Your task to perform on an android device: open app "Google Pay: Save, Pay, Manage" (install if not already installed) Image 0: 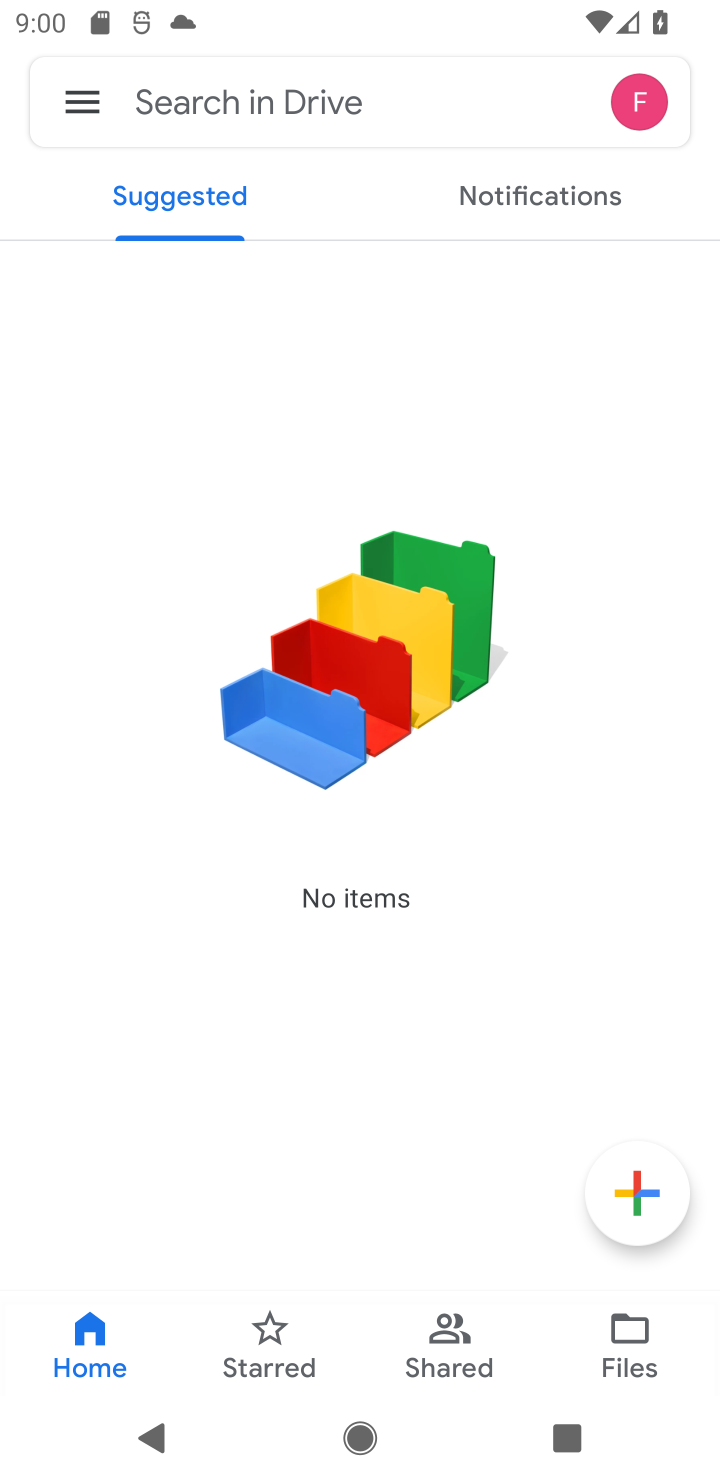
Step 0: press home button
Your task to perform on an android device: open app "Google Pay: Save, Pay, Manage" (install if not already installed) Image 1: 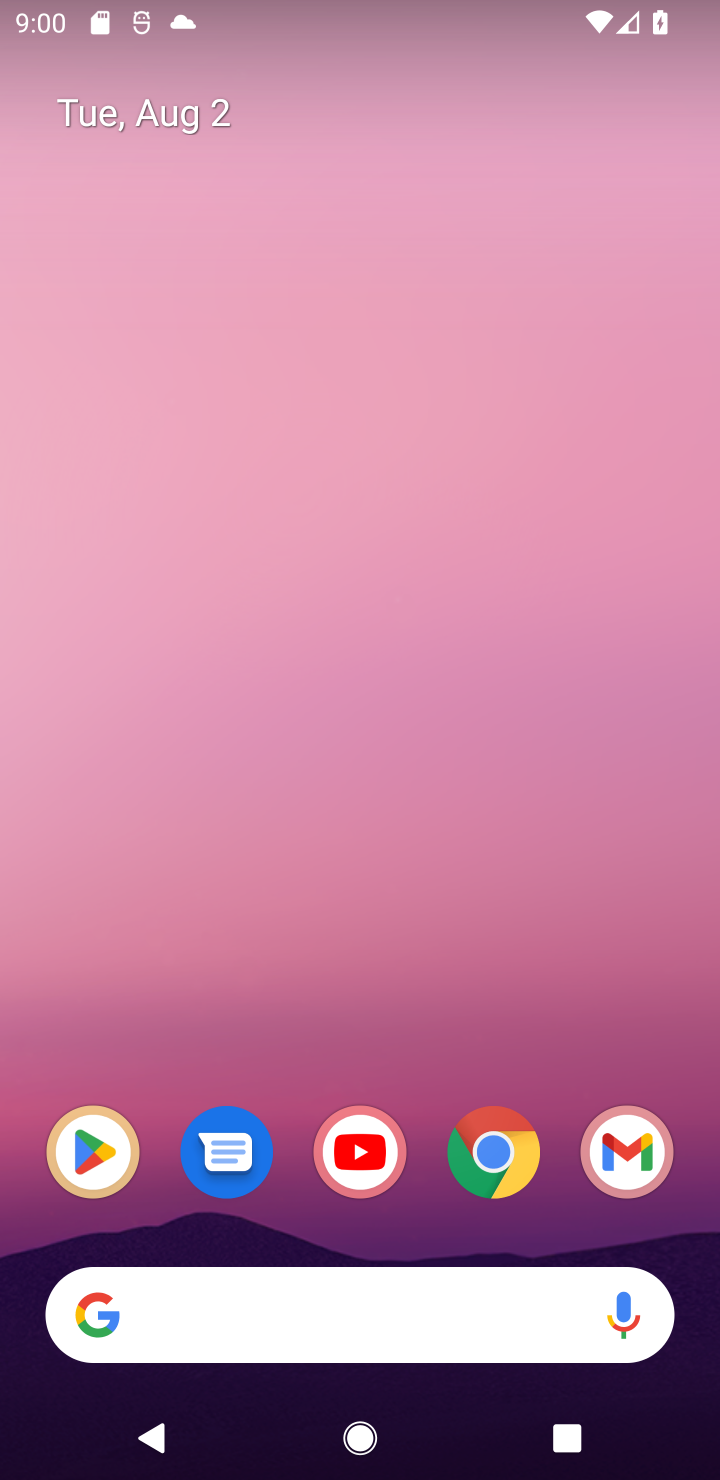
Step 1: click (96, 1160)
Your task to perform on an android device: open app "Google Pay: Save, Pay, Manage" (install if not already installed) Image 2: 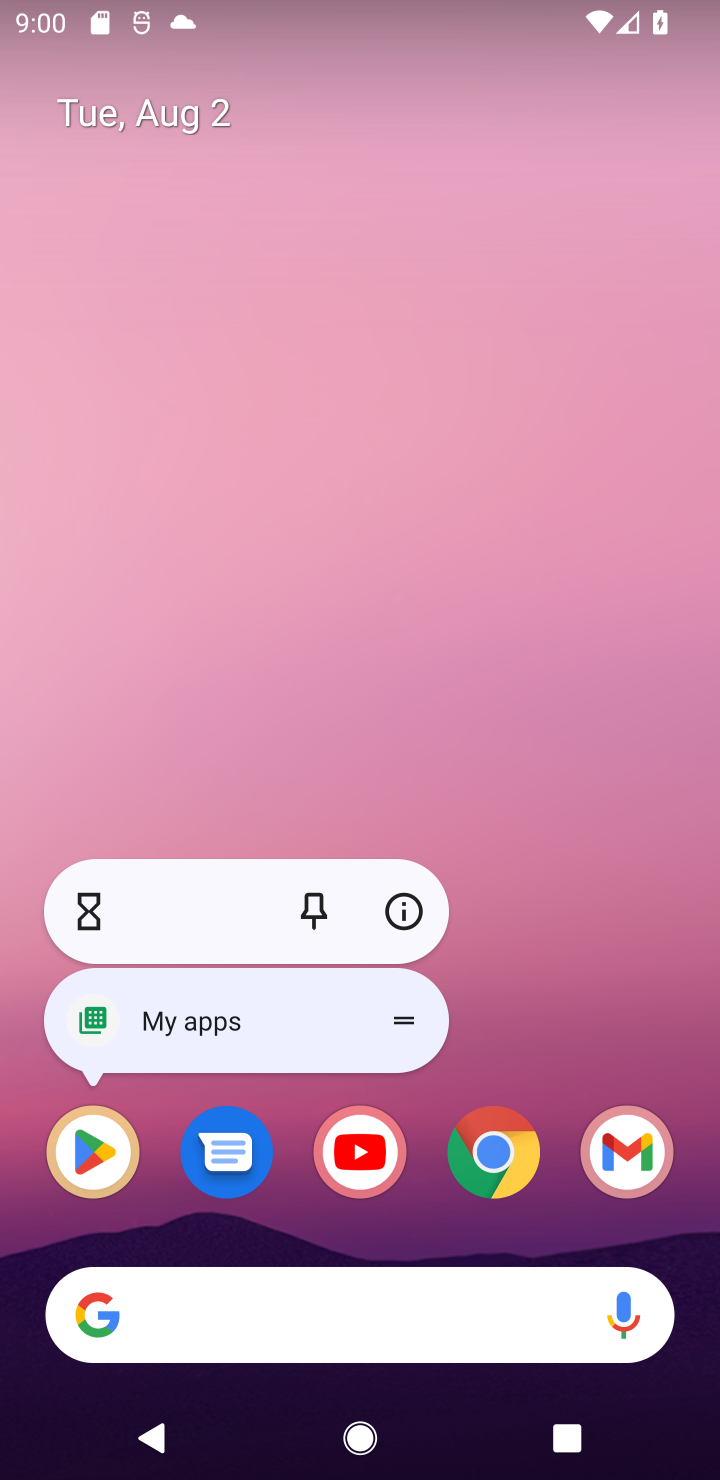
Step 2: click (96, 1160)
Your task to perform on an android device: open app "Google Pay: Save, Pay, Manage" (install if not already installed) Image 3: 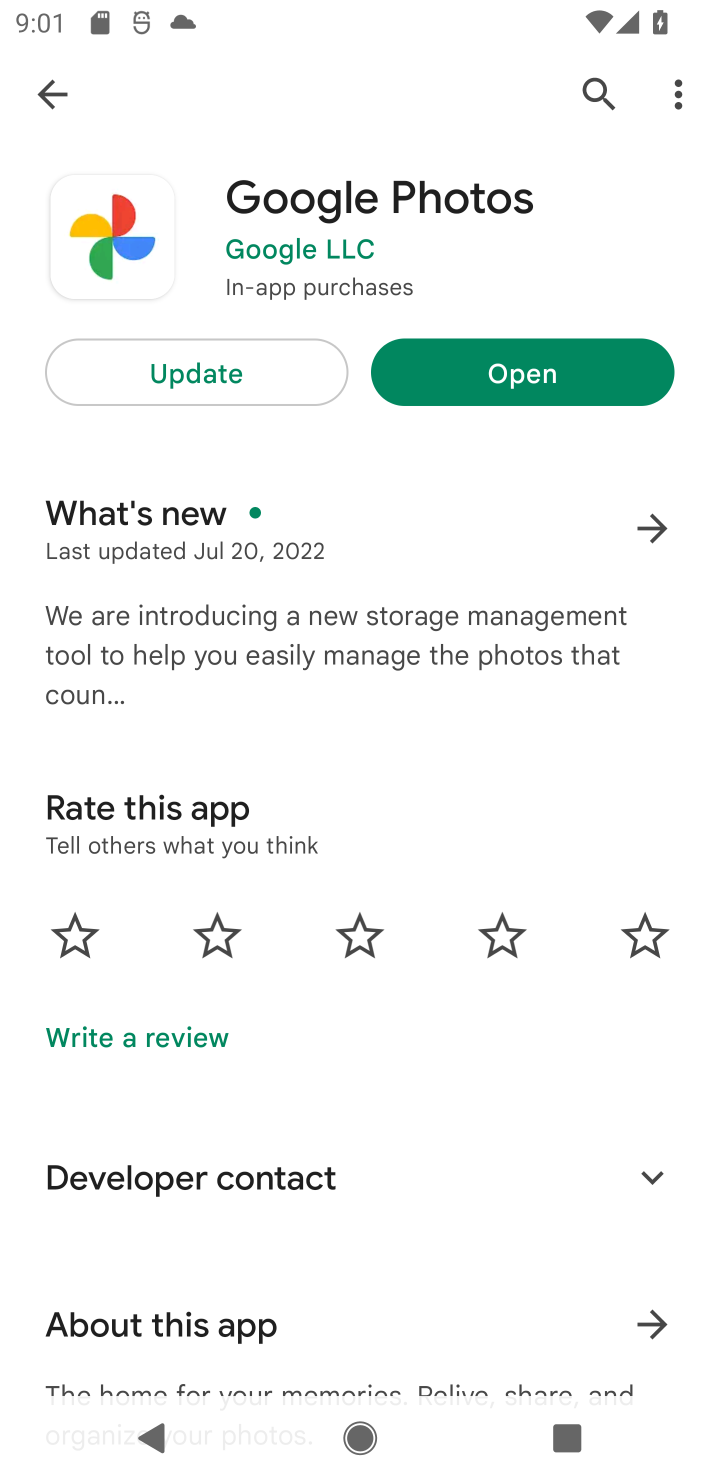
Step 3: click (42, 89)
Your task to perform on an android device: open app "Google Pay: Save, Pay, Manage" (install if not already installed) Image 4: 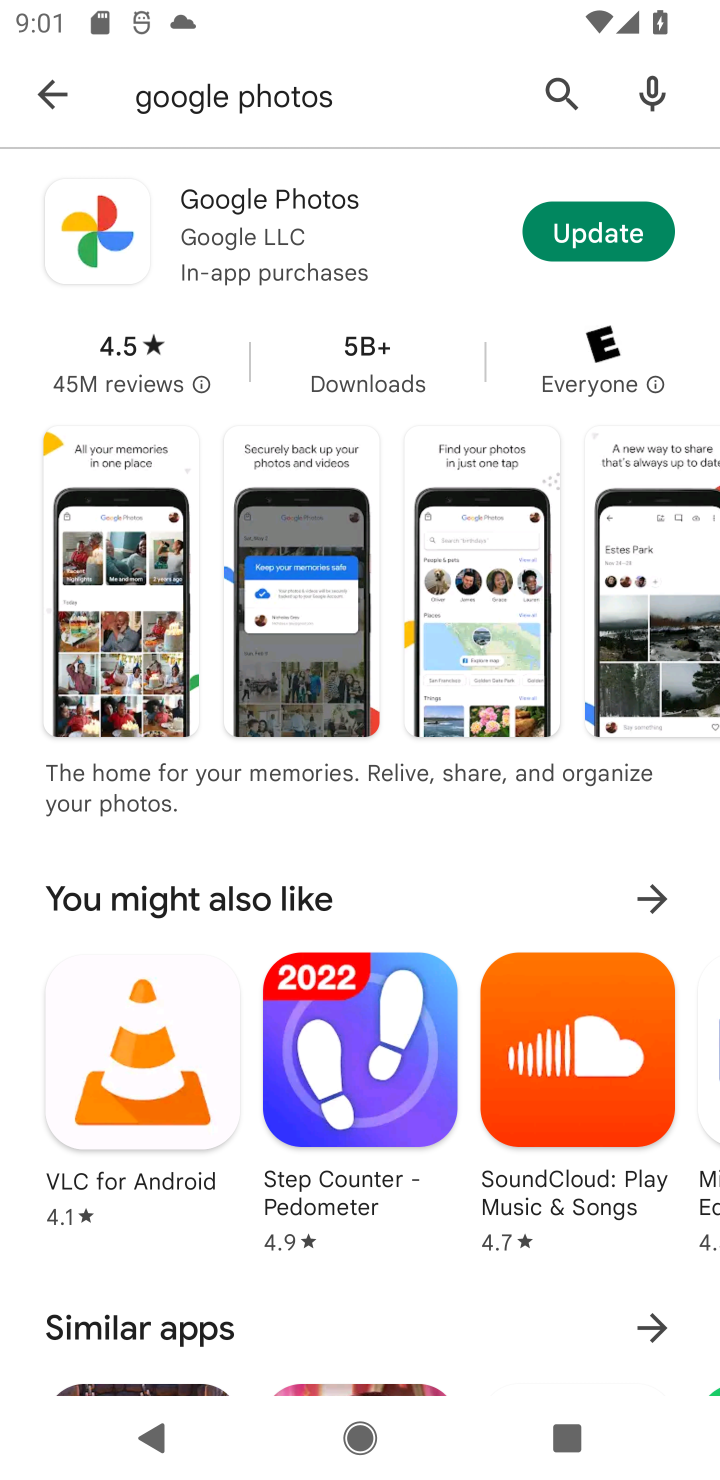
Step 4: click (67, 88)
Your task to perform on an android device: open app "Google Pay: Save, Pay, Manage" (install if not already installed) Image 5: 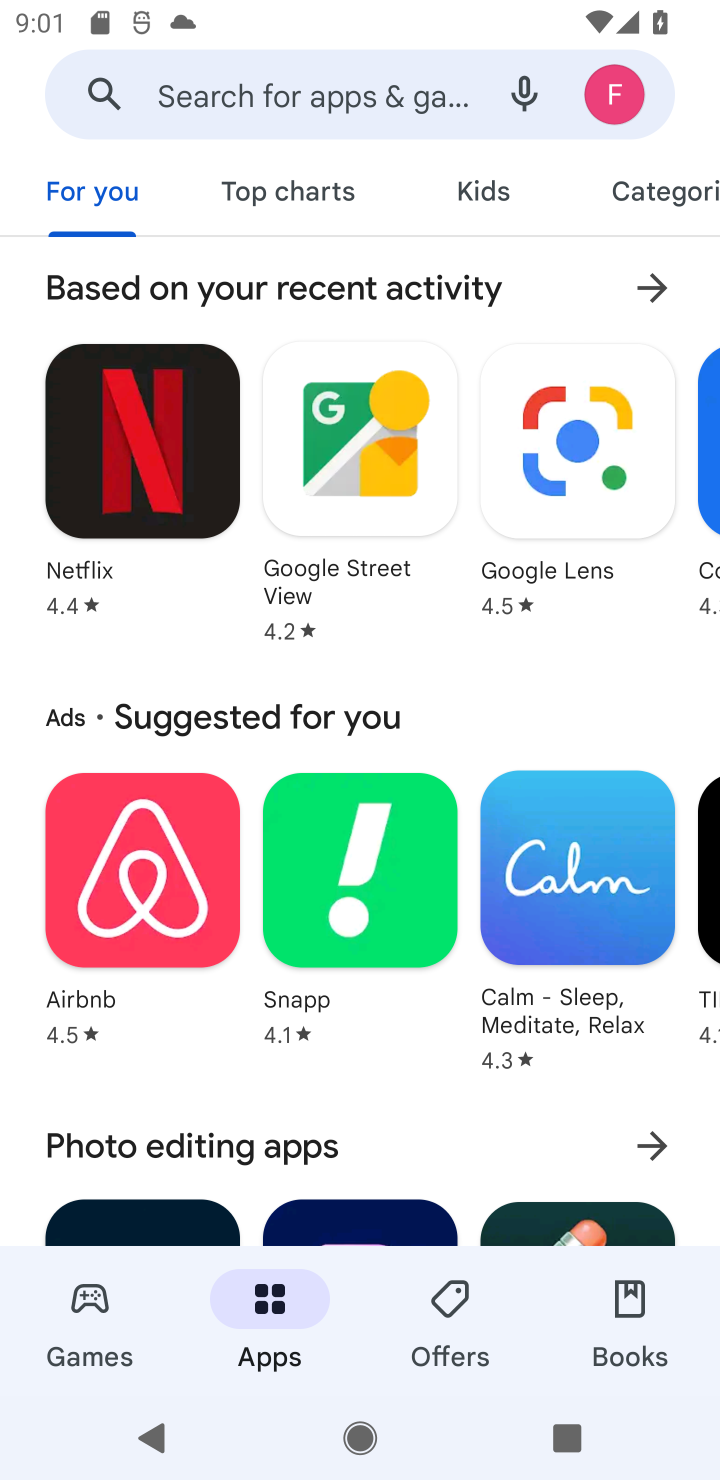
Step 5: click (180, 91)
Your task to perform on an android device: open app "Google Pay: Save, Pay, Manage" (install if not already installed) Image 6: 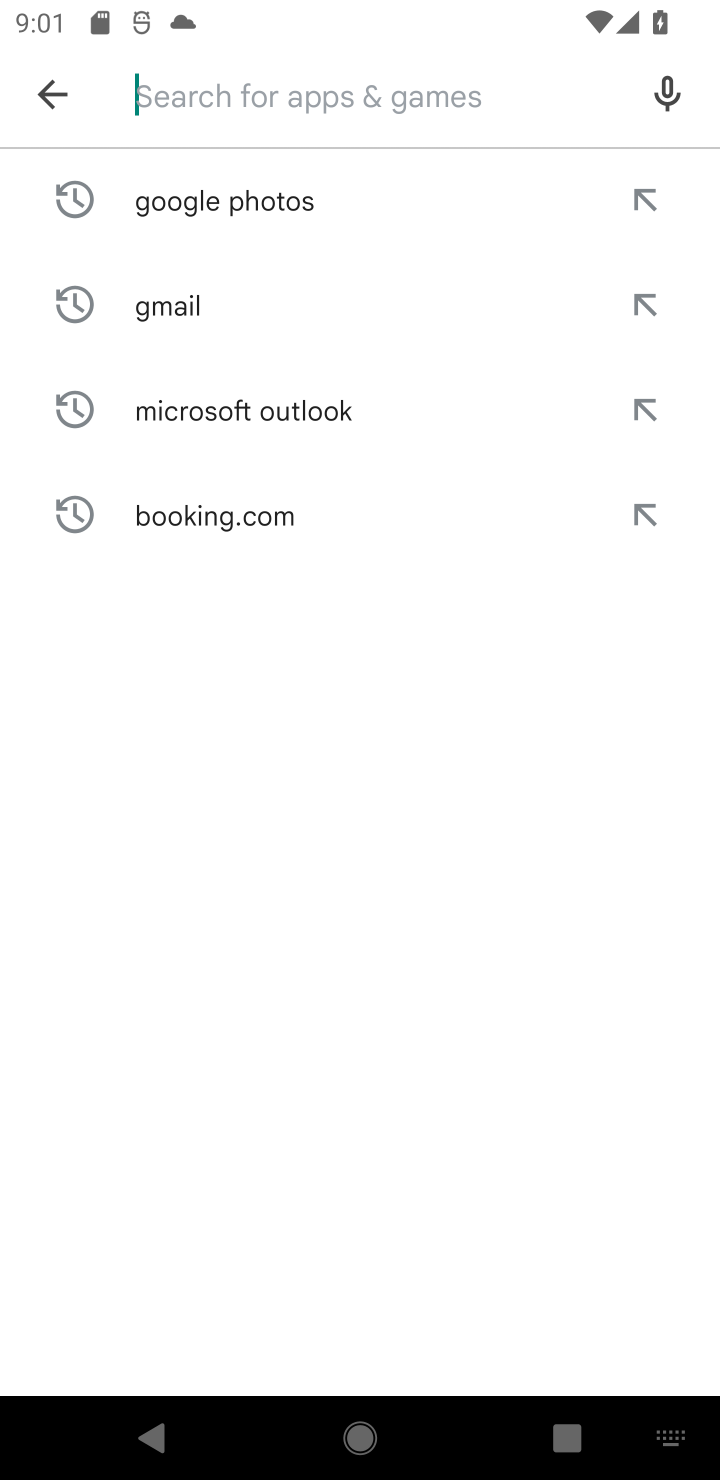
Step 6: type "Google Pay: Save, Pay, Manage"
Your task to perform on an android device: open app "Google Pay: Save, Pay, Manage" (install if not already installed) Image 7: 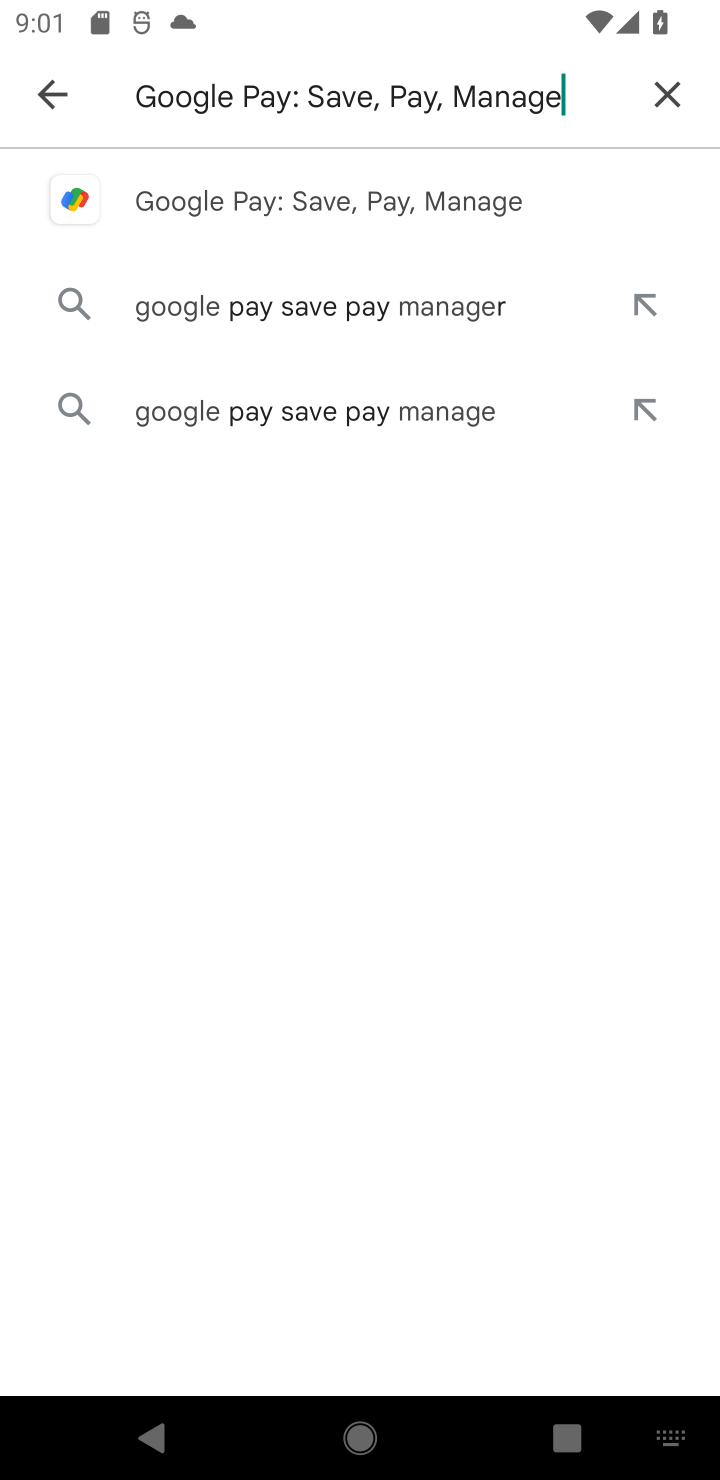
Step 7: click (336, 200)
Your task to perform on an android device: open app "Google Pay: Save, Pay, Manage" (install if not already installed) Image 8: 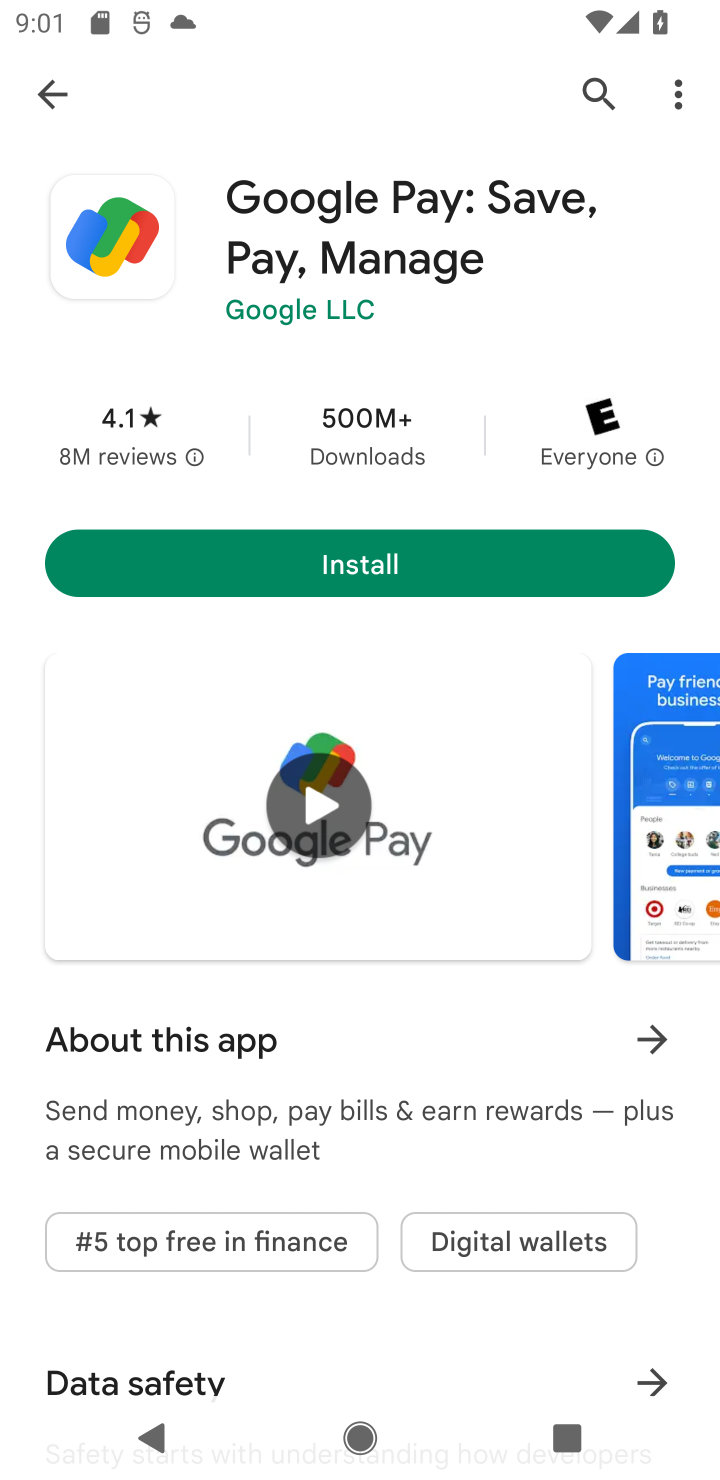
Step 8: task complete